Your task to perform on an android device: Show me popular games on the Play Store Image 0: 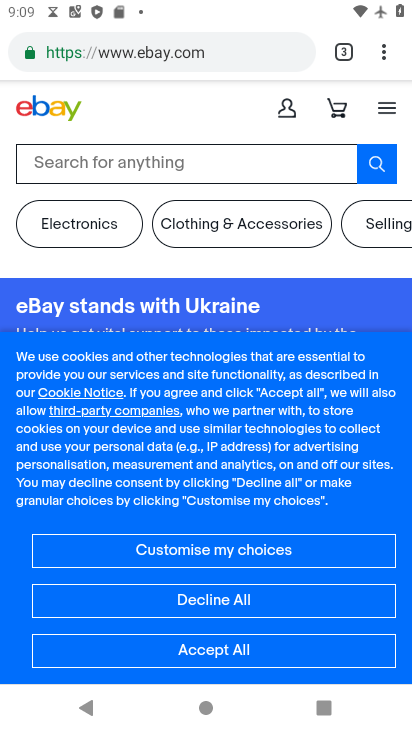
Step 0: press home button
Your task to perform on an android device: Show me popular games on the Play Store Image 1: 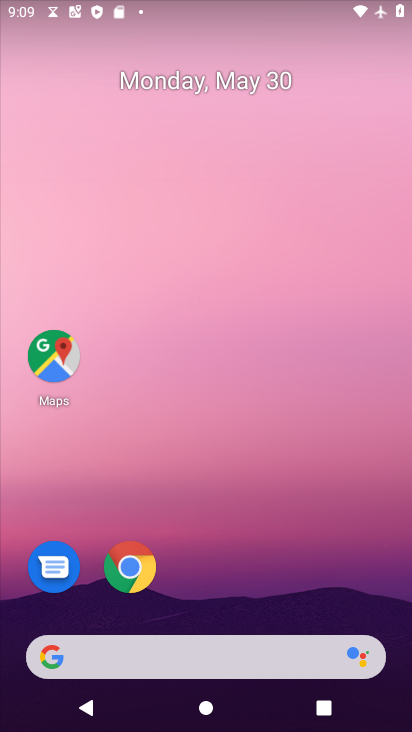
Step 1: drag from (240, 574) to (203, 190)
Your task to perform on an android device: Show me popular games on the Play Store Image 2: 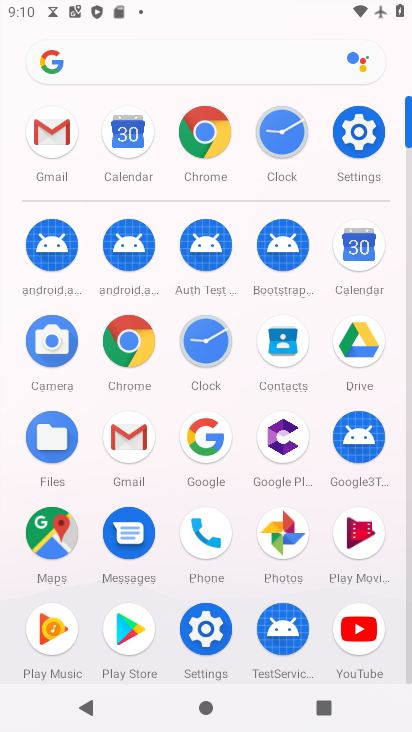
Step 2: click (133, 658)
Your task to perform on an android device: Show me popular games on the Play Store Image 3: 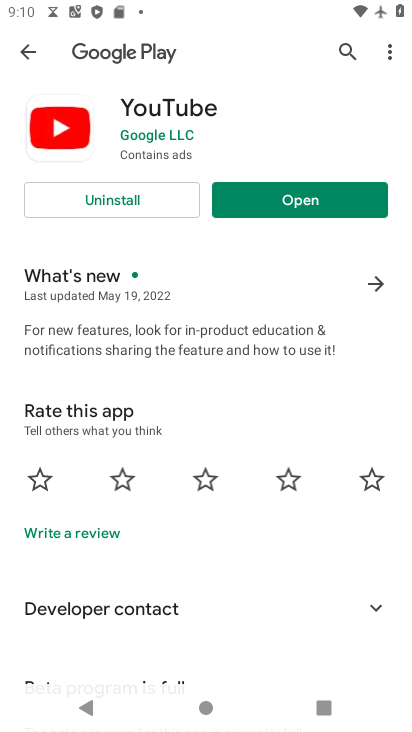
Step 3: click (25, 52)
Your task to perform on an android device: Show me popular games on the Play Store Image 4: 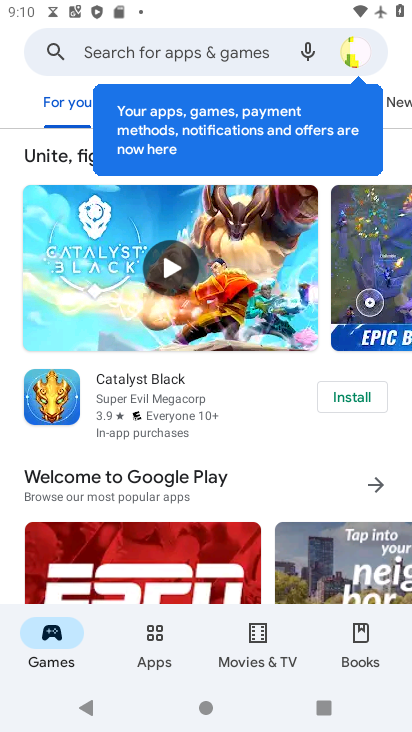
Step 4: drag from (174, 493) to (139, 240)
Your task to perform on an android device: Show me popular games on the Play Store Image 5: 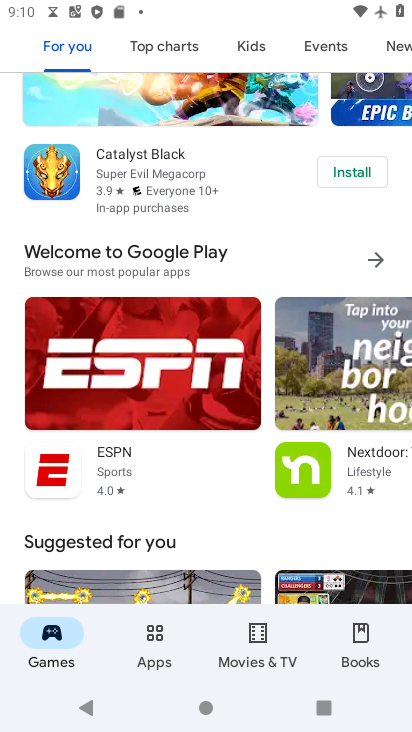
Step 5: drag from (225, 518) to (226, 230)
Your task to perform on an android device: Show me popular games on the Play Store Image 6: 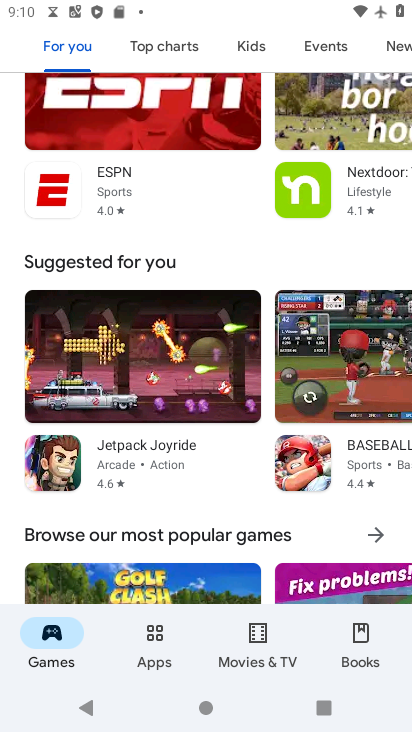
Step 6: drag from (264, 496) to (227, 311)
Your task to perform on an android device: Show me popular games on the Play Store Image 7: 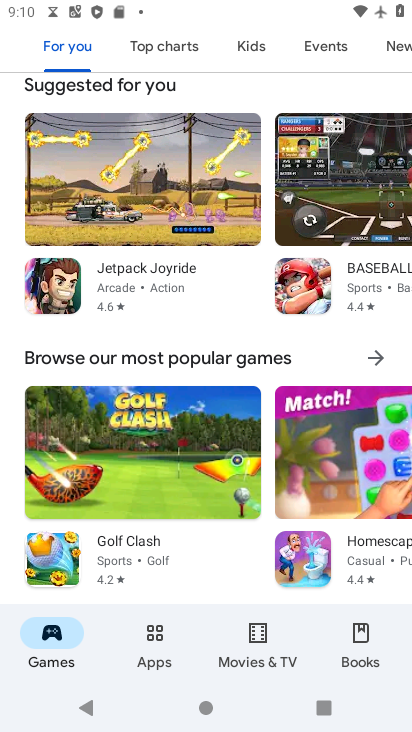
Step 7: click (195, 360)
Your task to perform on an android device: Show me popular games on the Play Store Image 8: 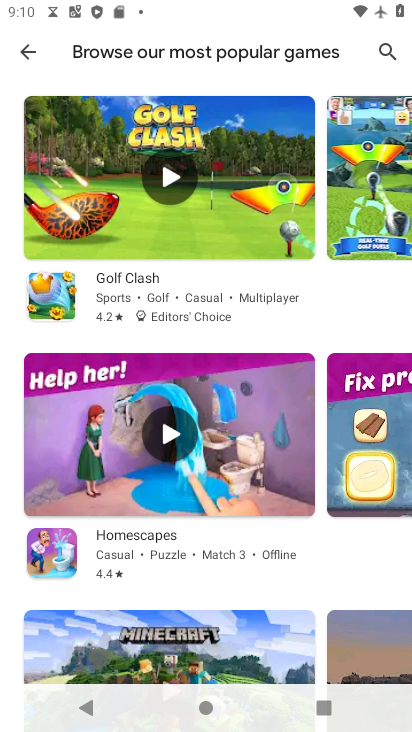
Step 8: task complete